Your task to perform on an android device: Open the Play Movies app and select the watchlist tab. Image 0: 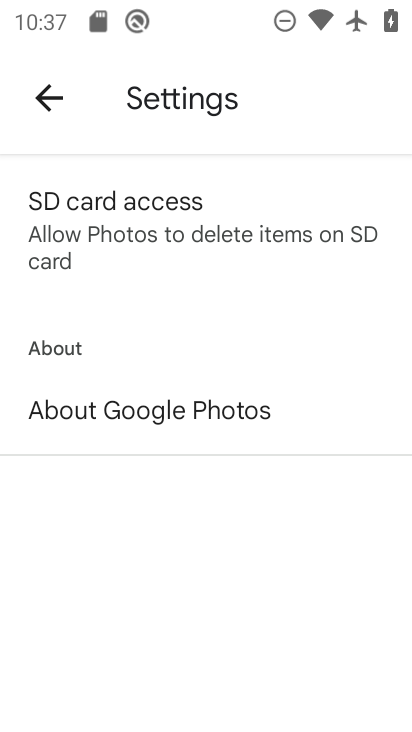
Step 0: press home button
Your task to perform on an android device: Open the Play Movies app and select the watchlist tab. Image 1: 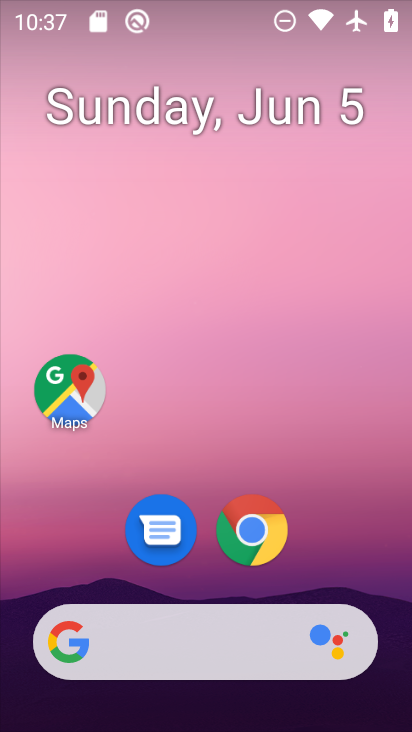
Step 1: drag from (391, 630) to (339, 196)
Your task to perform on an android device: Open the Play Movies app and select the watchlist tab. Image 2: 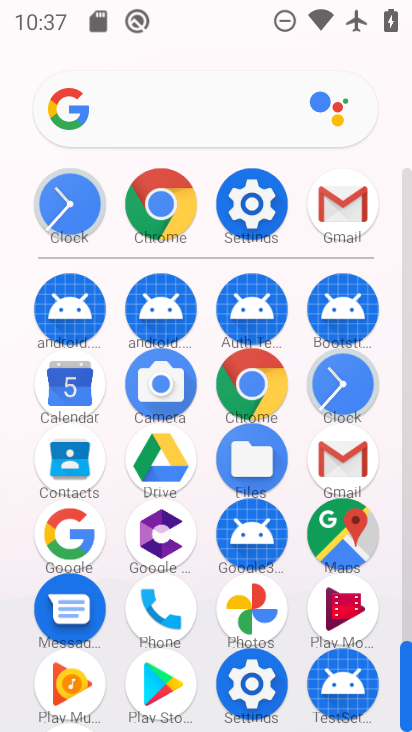
Step 2: click (344, 598)
Your task to perform on an android device: Open the Play Movies app and select the watchlist tab. Image 3: 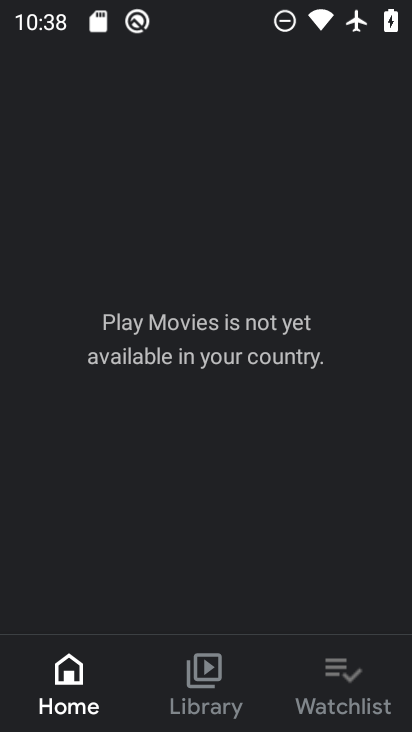
Step 3: click (333, 685)
Your task to perform on an android device: Open the Play Movies app and select the watchlist tab. Image 4: 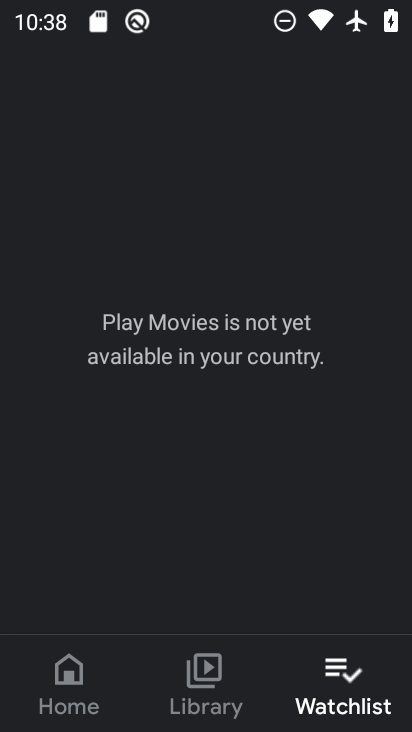
Step 4: task complete